Your task to perform on an android device: Turn on the flashlight Image 0: 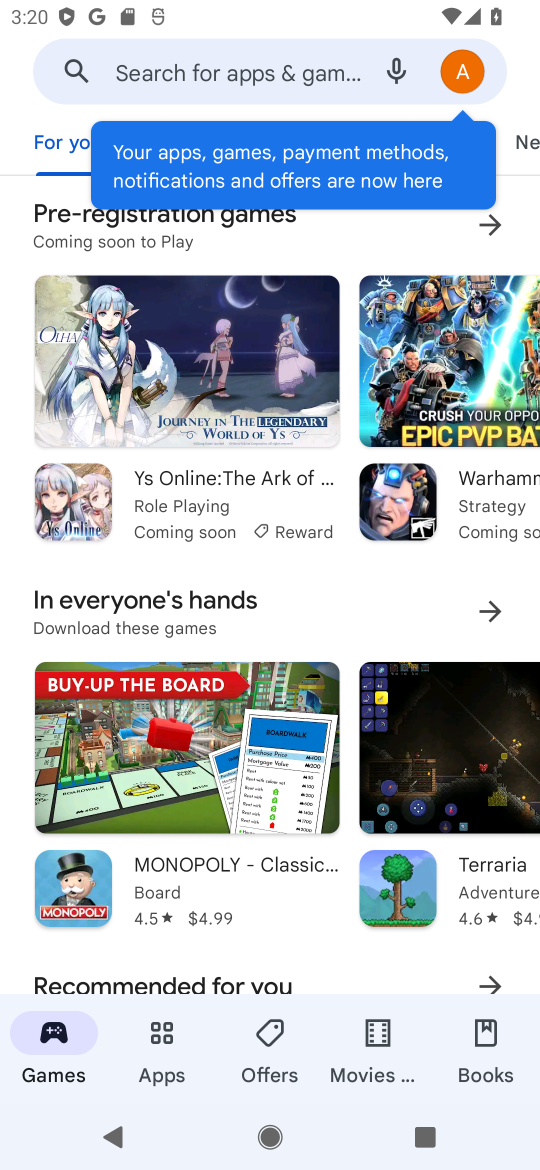
Step 0: drag from (225, 263) to (231, 720)
Your task to perform on an android device: Turn on the flashlight Image 1: 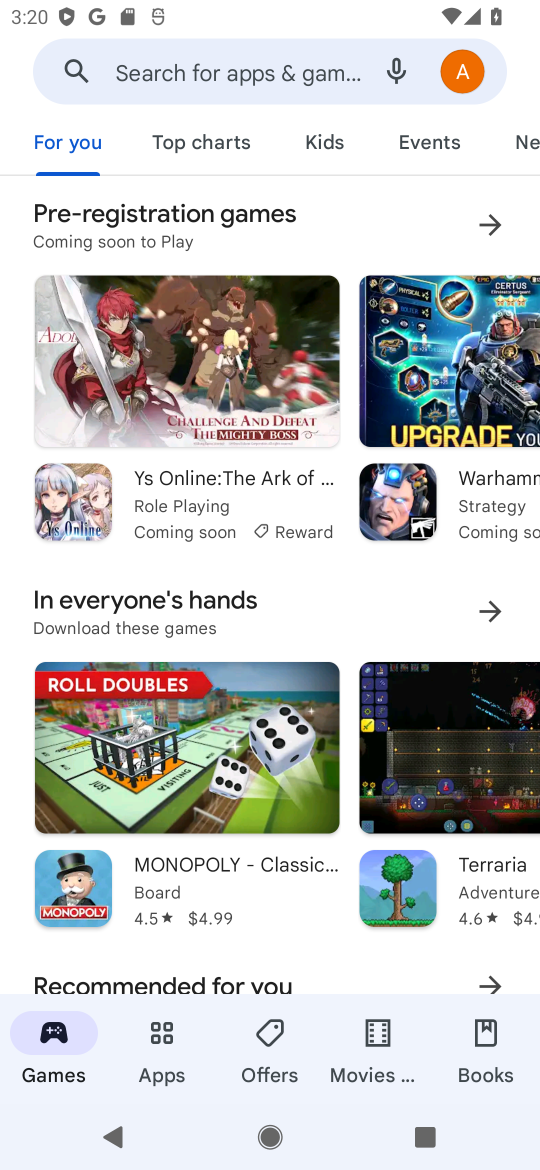
Step 1: drag from (222, 16) to (137, 872)
Your task to perform on an android device: Turn on the flashlight Image 2: 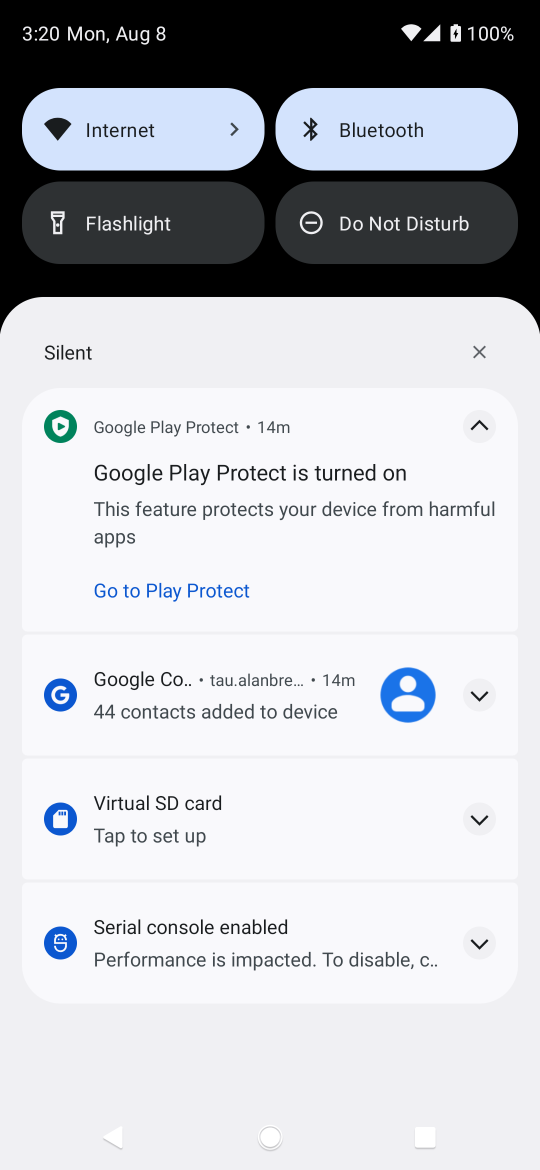
Step 2: click (119, 233)
Your task to perform on an android device: Turn on the flashlight Image 3: 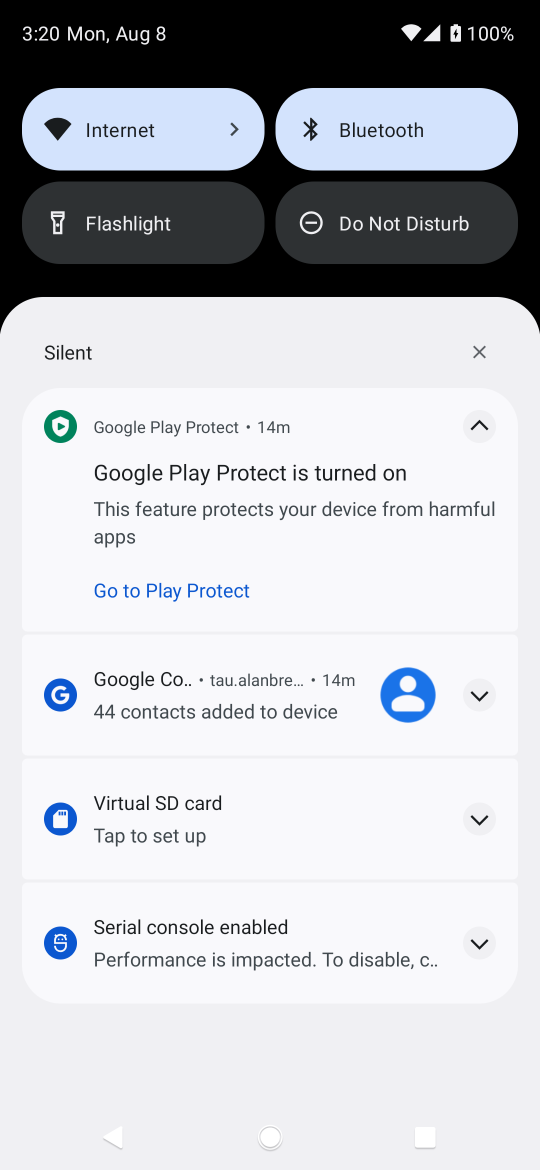
Step 3: task complete